Your task to perform on an android device: Open Maps and search for coffee Image 0: 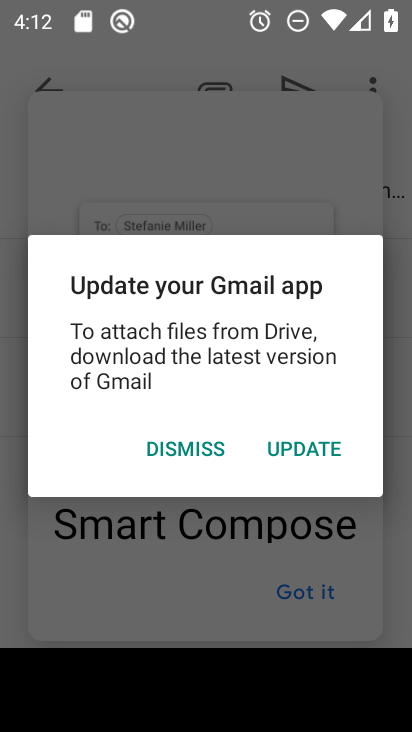
Step 0: press home button
Your task to perform on an android device: Open Maps and search for coffee Image 1: 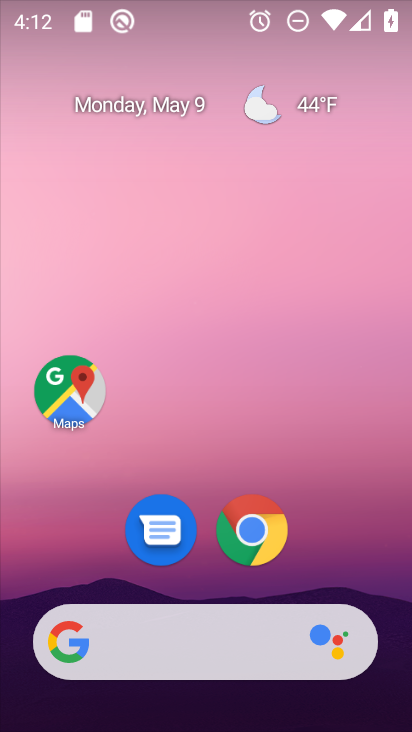
Step 1: click (65, 380)
Your task to perform on an android device: Open Maps and search for coffee Image 2: 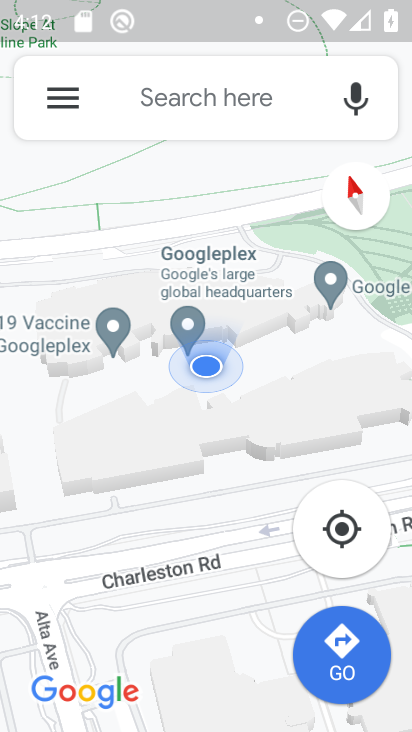
Step 2: click (182, 97)
Your task to perform on an android device: Open Maps and search for coffee Image 3: 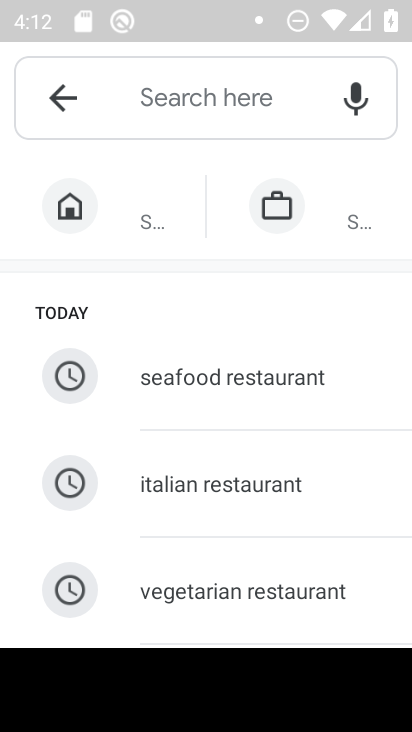
Step 3: drag from (198, 557) to (190, 231)
Your task to perform on an android device: Open Maps and search for coffee Image 4: 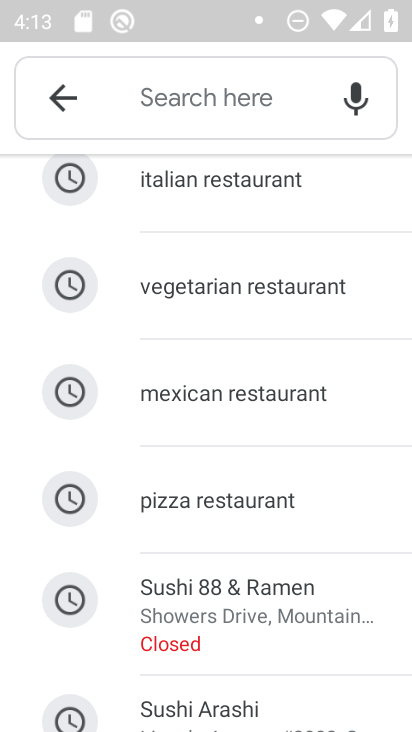
Step 4: click (180, 86)
Your task to perform on an android device: Open Maps and search for coffee Image 5: 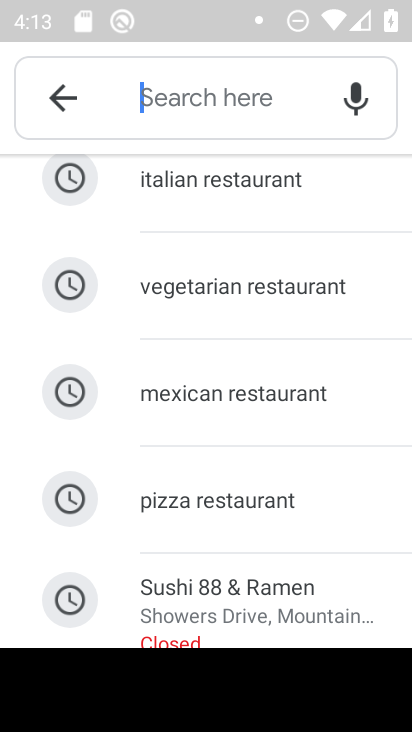
Step 5: type "coffee"
Your task to perform on an android device: Open Maps and search for coffee Image 6: 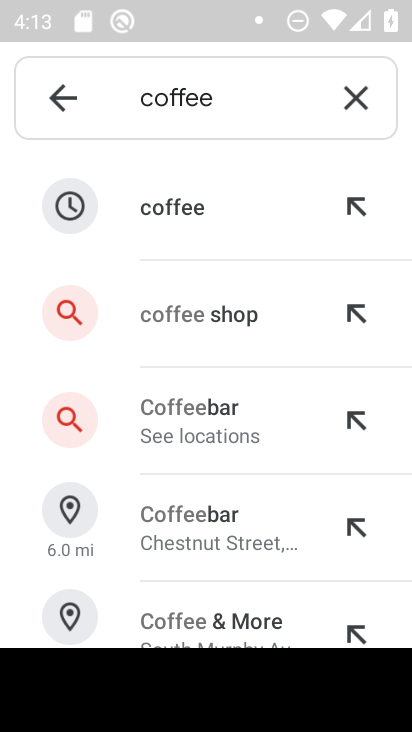
Step 6: click (198, 219)
Your task to perform on an android device: Open Maps and search for coffee Image 7: 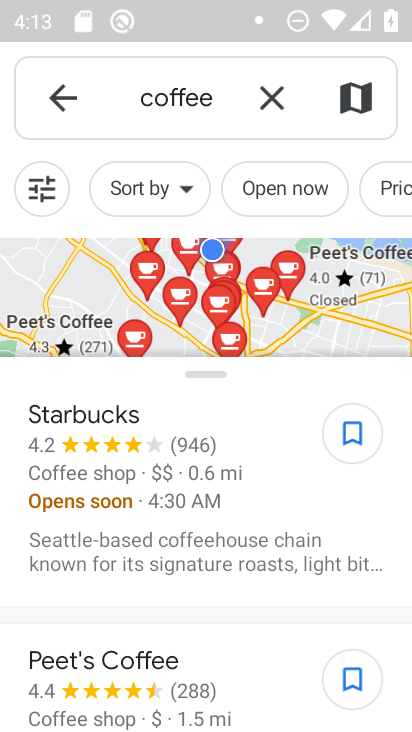
Step 7: task complete